Your task to perform on an android device: turn on sleep mode Image 0: 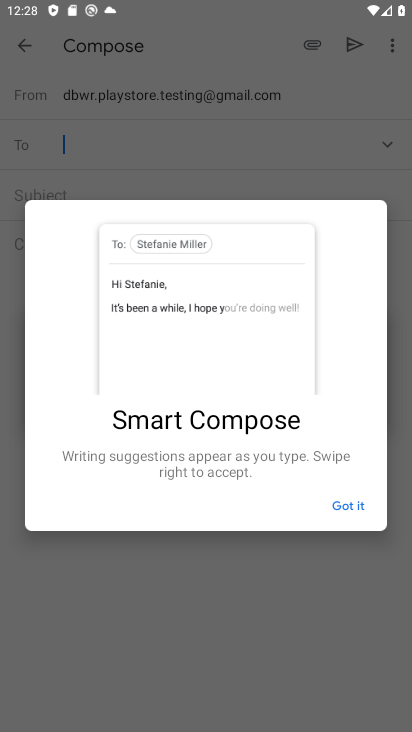
Step 0: press home button
Your task to perform on an android device: turn on sleep mode Image 1: 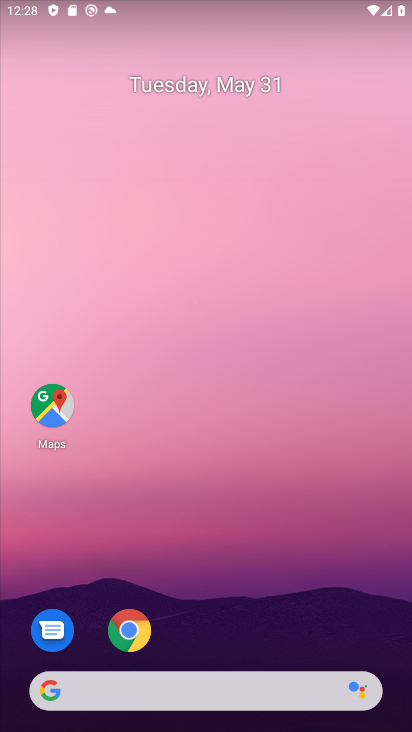
Step 1: drag from (215, 635) to (207, 143)
Your task to perform on an android device: turn on sleep mode Image 2: 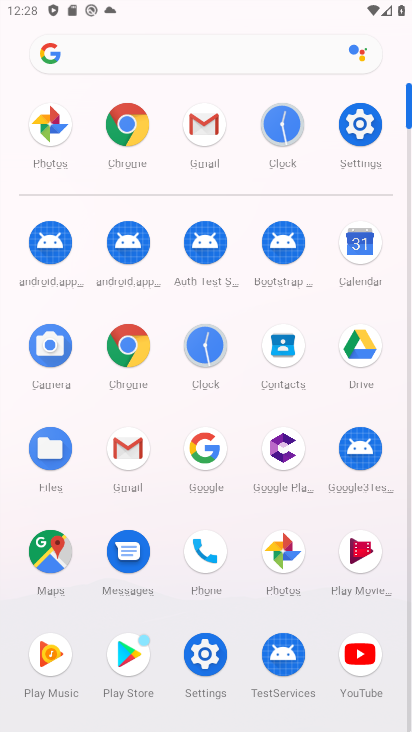
Step 2: click (205, 657)
Your task to perform on an android device: turn on sleep mode Image 3: 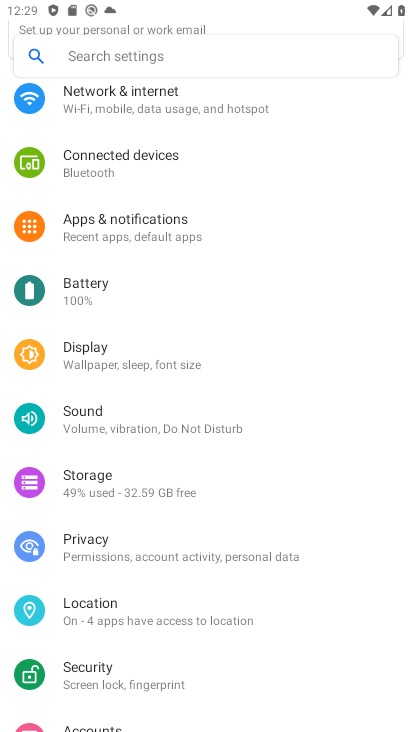
Step 3: click (143, 365)
Your task to perform on an android device: turn on sleep mode Image 4: 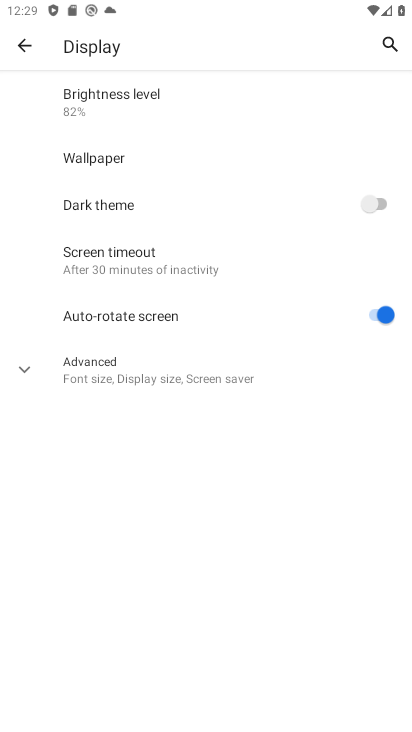
Step 4: task complete